Your task to perform on an android device: Add usb-a to the cart on amazon.com Image 0: 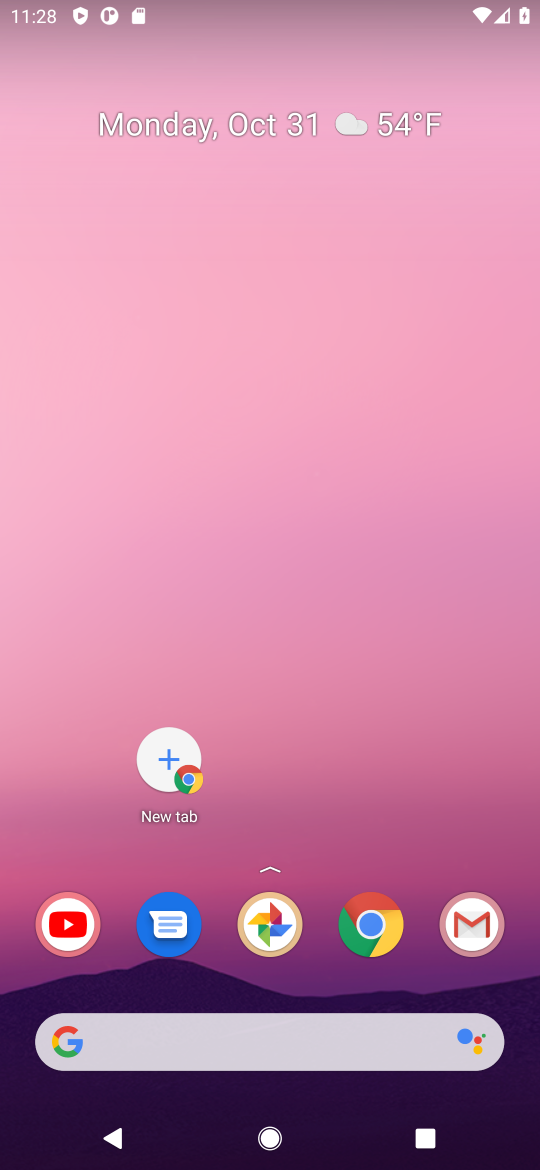
Step 0: press home button
Your task to perform on an android device: Add usb-a to the cart on amazon.com Image 1: 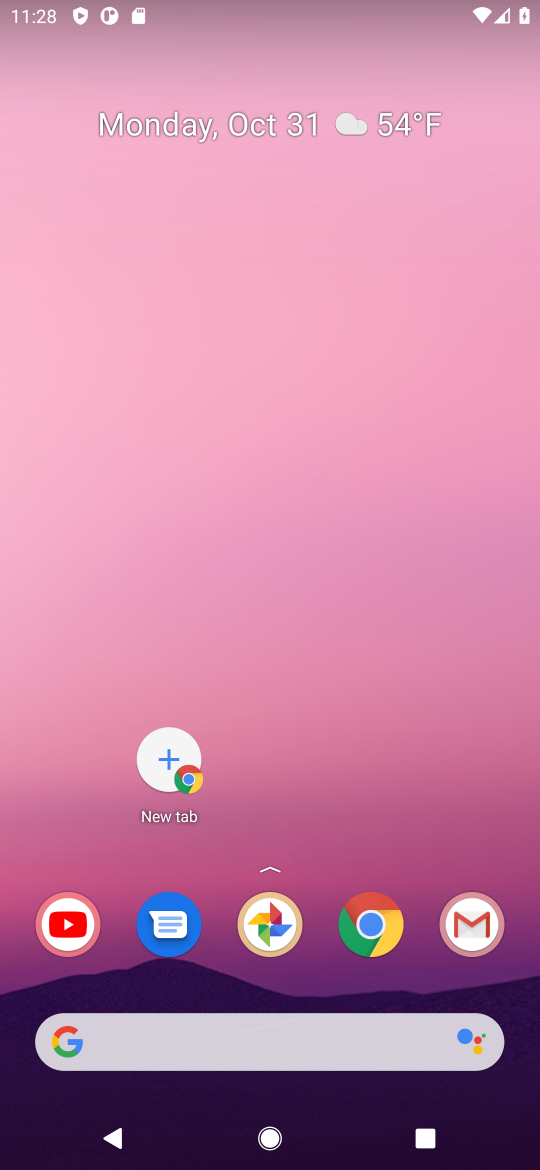
Step 1: click (145, 746)
Your task to perform on an android device: Add usb-a to the cart on amazon.com Image 2: 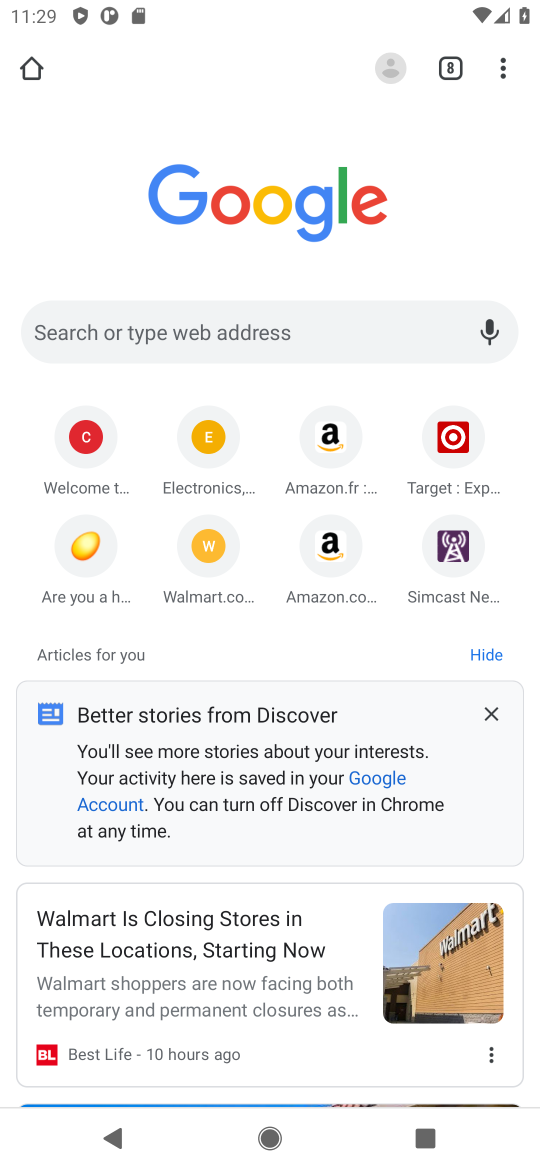
Step 2: click (320, 345)
Your task to perform on an android device: Add usb-a to the cart on amazon.com Image 3: 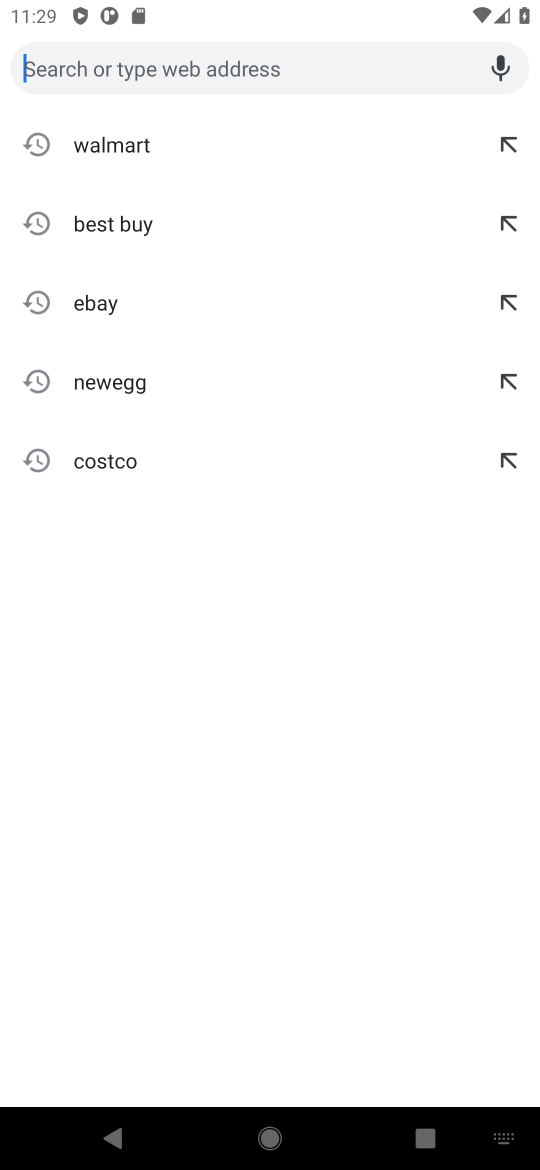
Step 3: type "amazone.com"
Your task to perform on an android device: Add usb-a to the cart on amazon.com Image 4: 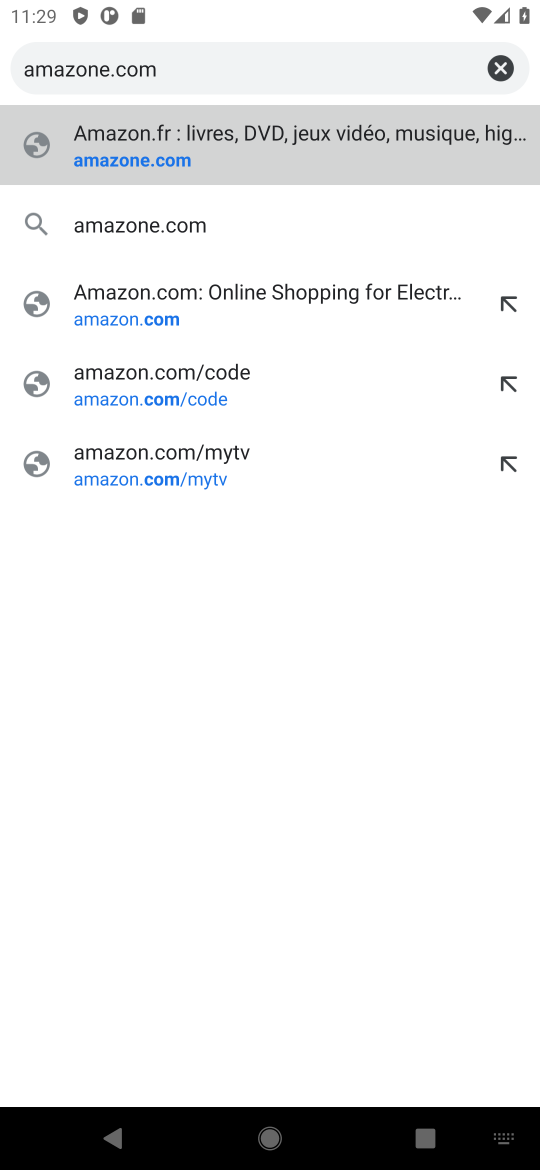
Step 4: type ""
Your task to perform on an android device: Add usb-a to the cart on amazon.com Image 5: 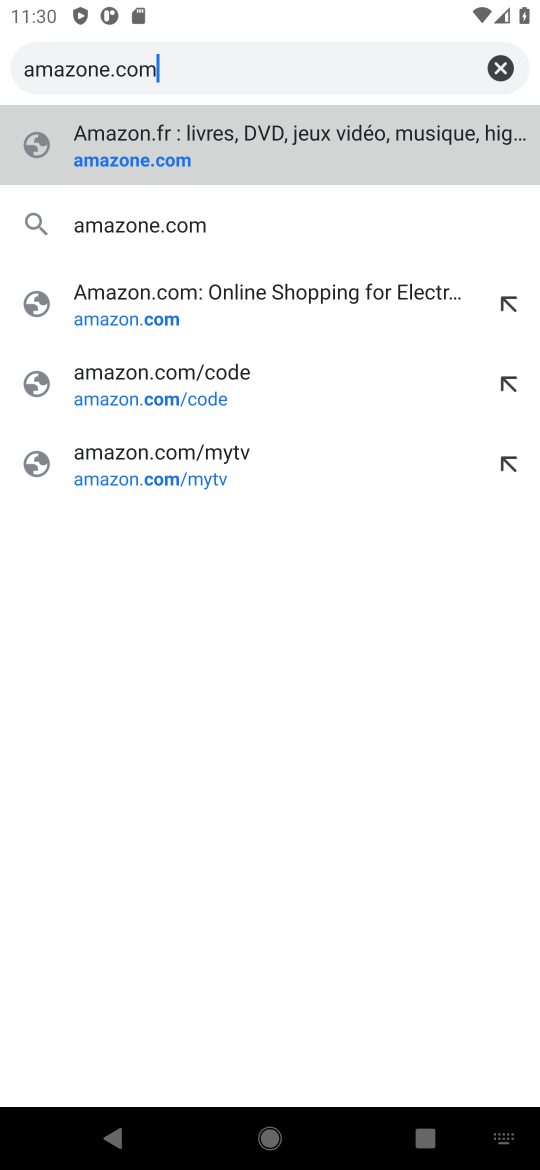
Step 5: click (197, 310)
Your task to perform on an android device: Add usb-a to the cart on amazon.com Image 6: 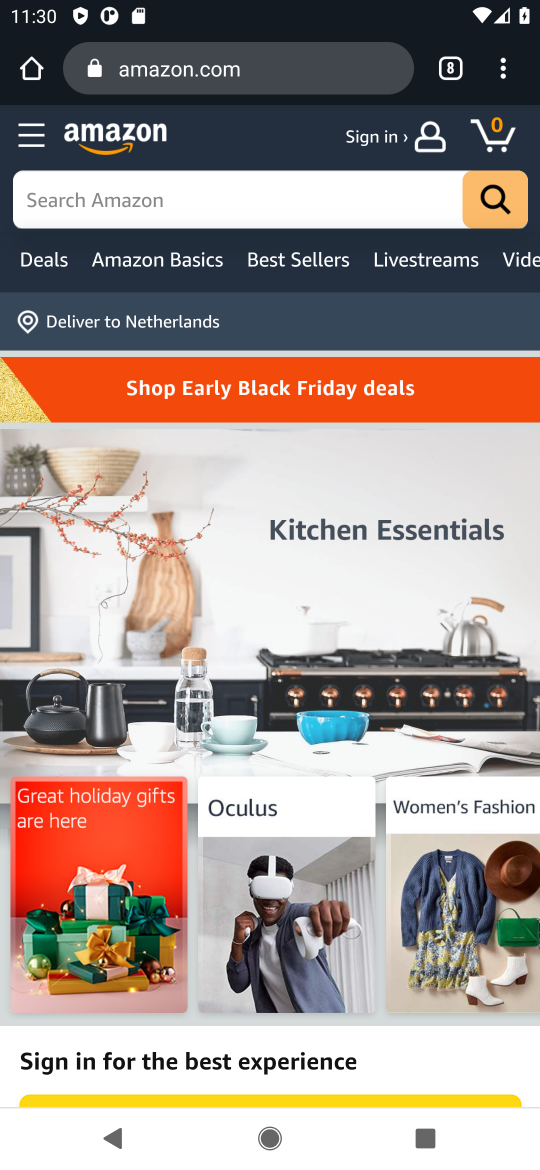
Step 6: click (236, 209)
Your task to perform on an android device: Add usb-a to the cart on amazon.com Image 7: 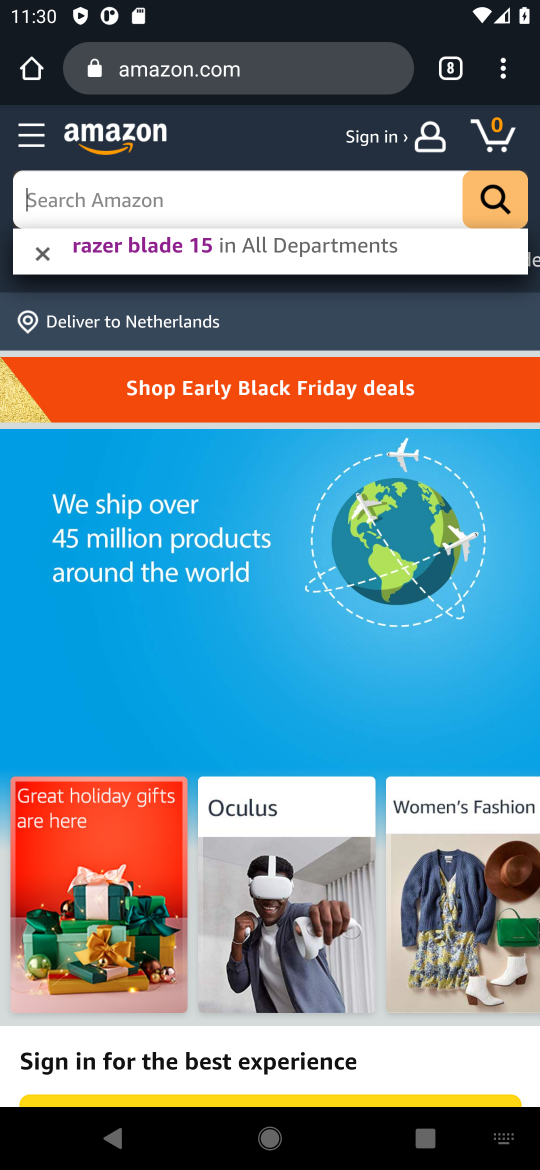
Step 7: type "usb-a"
Your task to perform on an android device: Add usb-a to the cart on amazon.com Image 8: 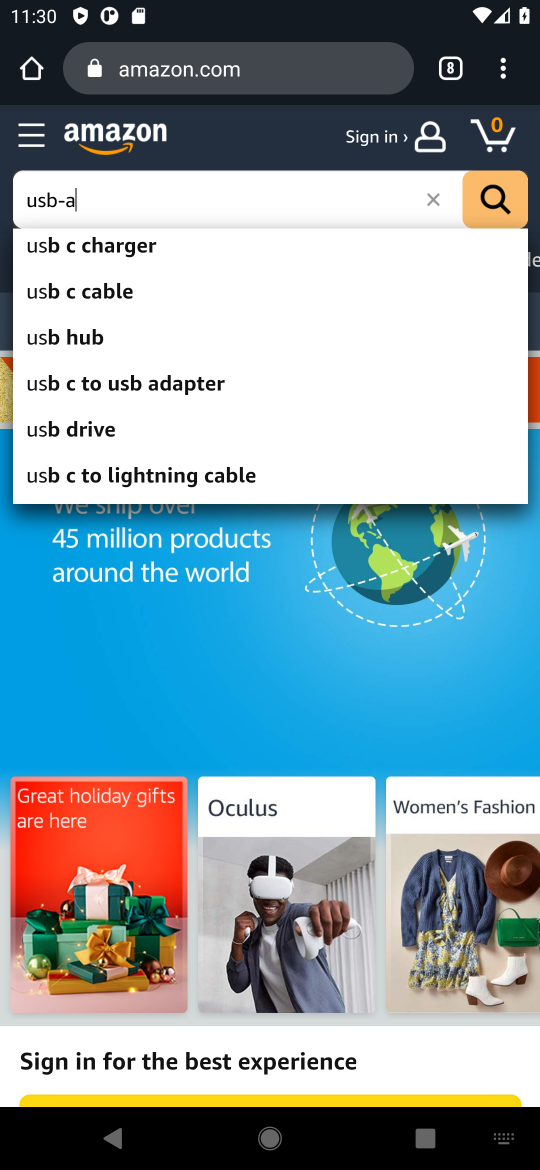
Step 8: type ""
Your task to perform on an android device: Add usb-a to the cart on amazon.com Image 9: 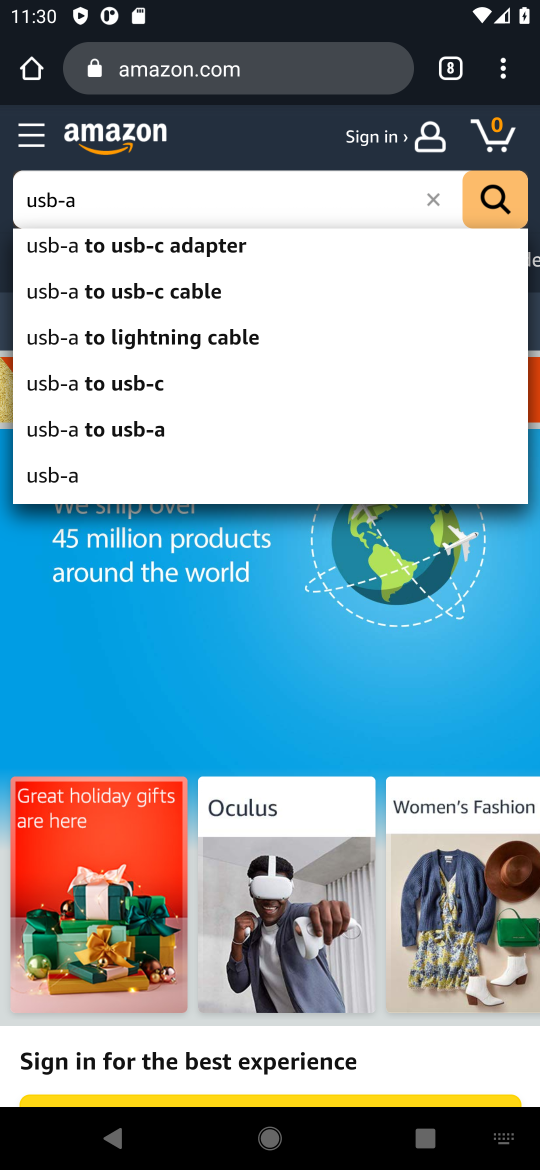
Step 9: click (170, 269)
Your task to perform on an android device: Add usb-a to the cart on amazon.com Image 10: 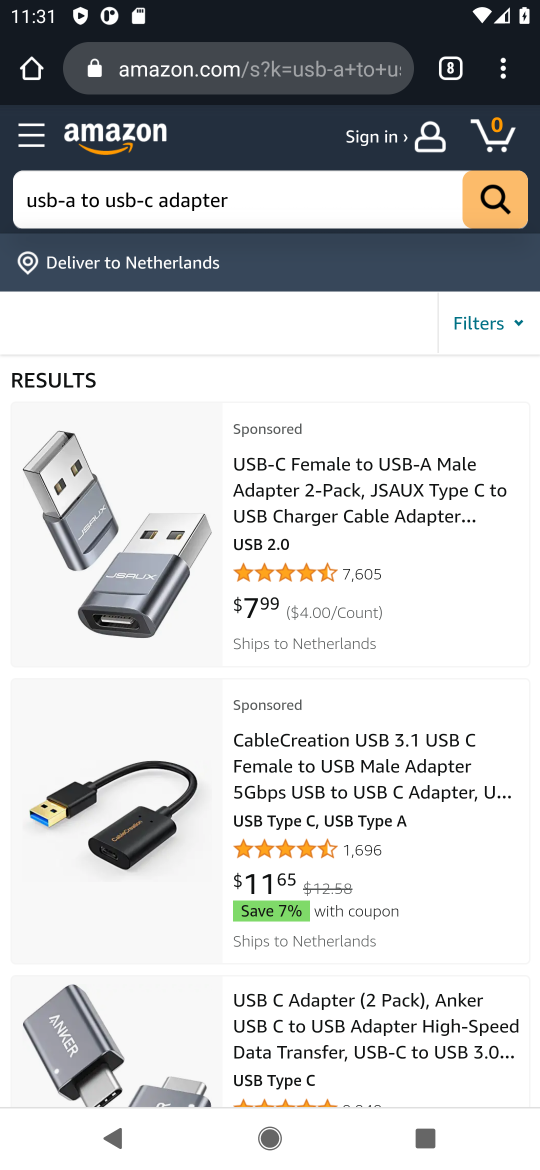
Step 10: drag from (370, 839) to (399, 630)
Your task to perform on an android device: Add usb-a to the cart on amazon.com Image 11: 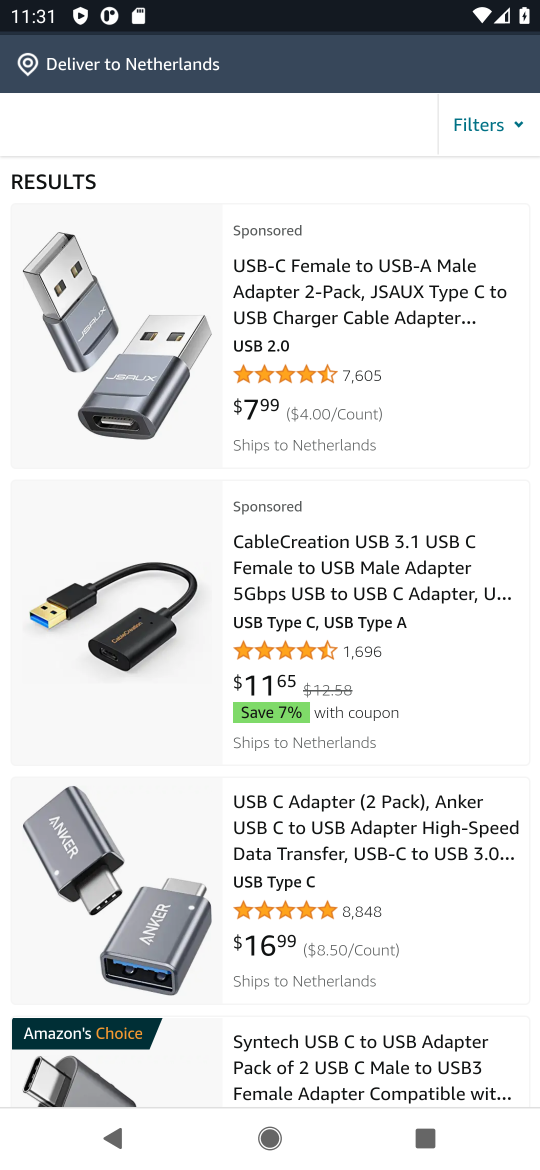
Step 11: click (307, 281)
Your task to perform on an android device: Add usb-a to the cart on amazon.com Image 12: 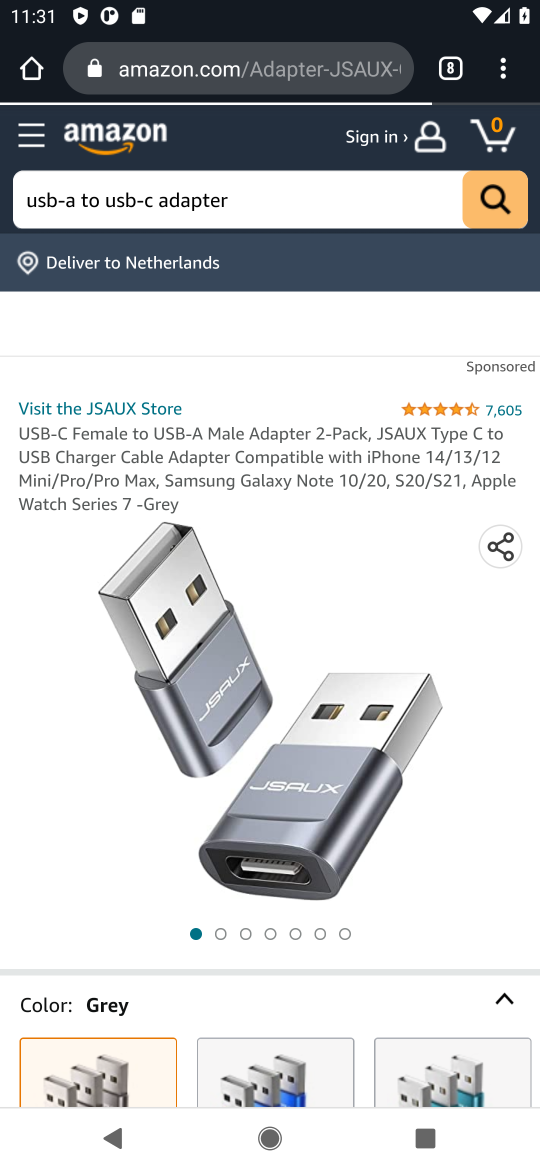
Step 12: drag from (255, 830) to (318, 417)
Your task to perform on an android device: Add usb-a to the cart on amazon.com Image 13: 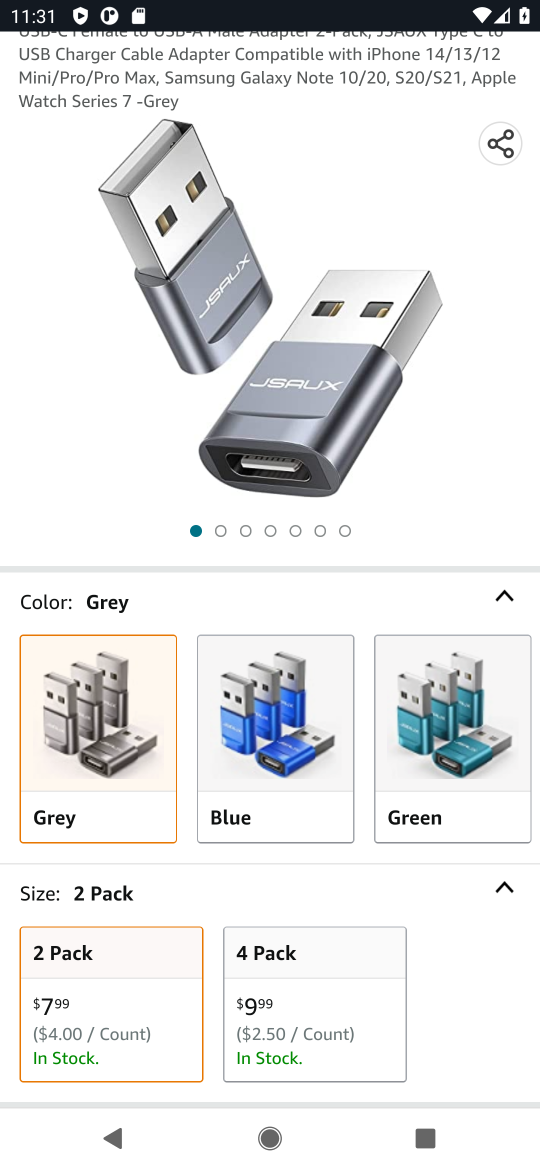
Step 13: drag from (253, 658) to (324, 393)
Your task to perform on an android device: Add usb-a to the cart on amazon.com Image 14: 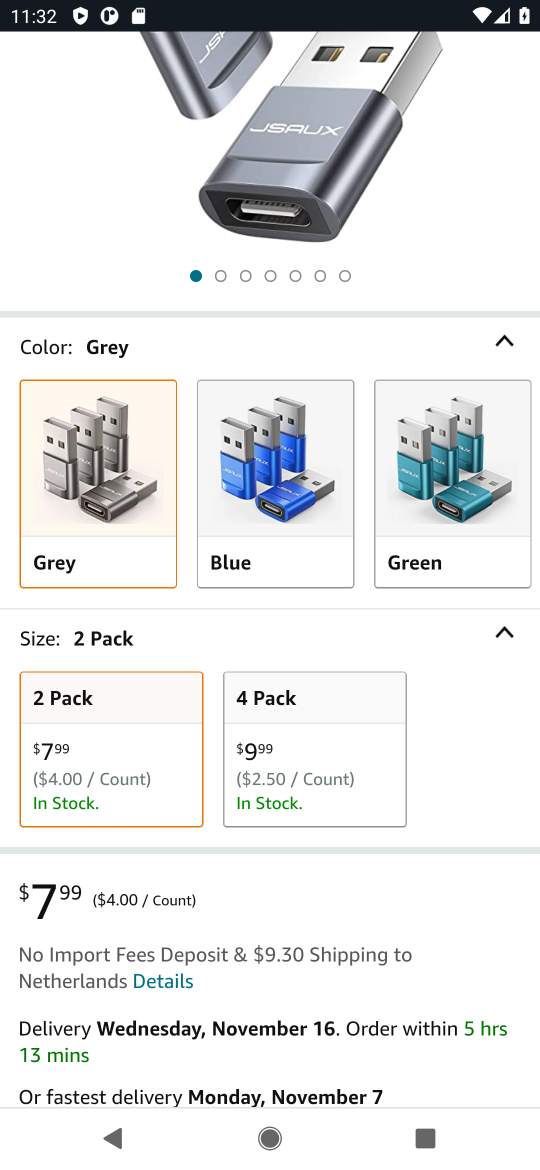
Step 14: drag from (316, 831) to (354, 138)
Your task to perform on an android device: Add usb-a to the cart on amazon.com Image 15: 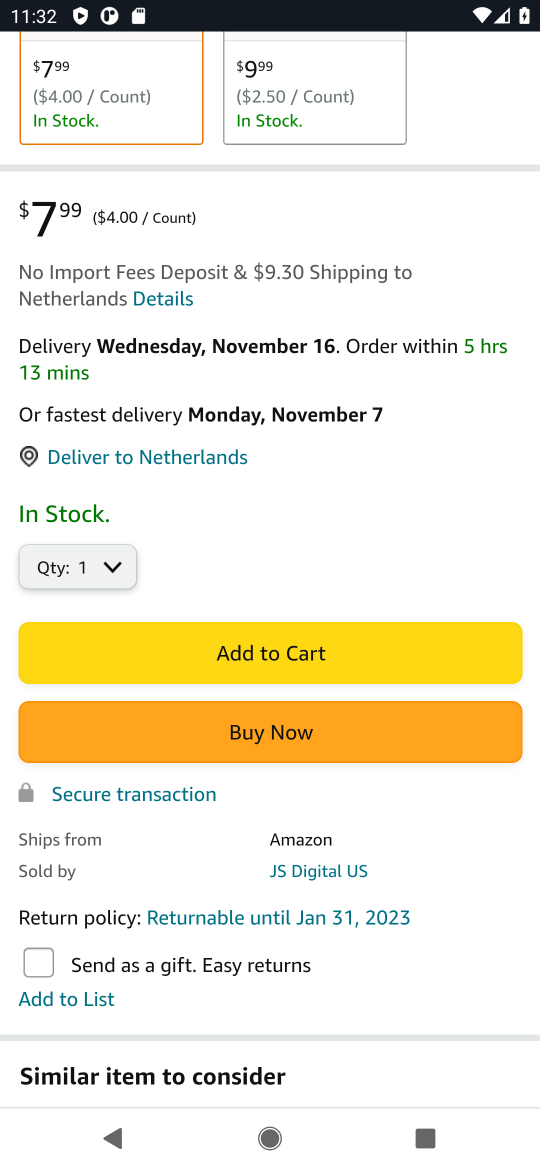
Step 15: click (268, 658)
Your task to perform on an android device: Add usb-a to the cart on amazon.com Image 16: 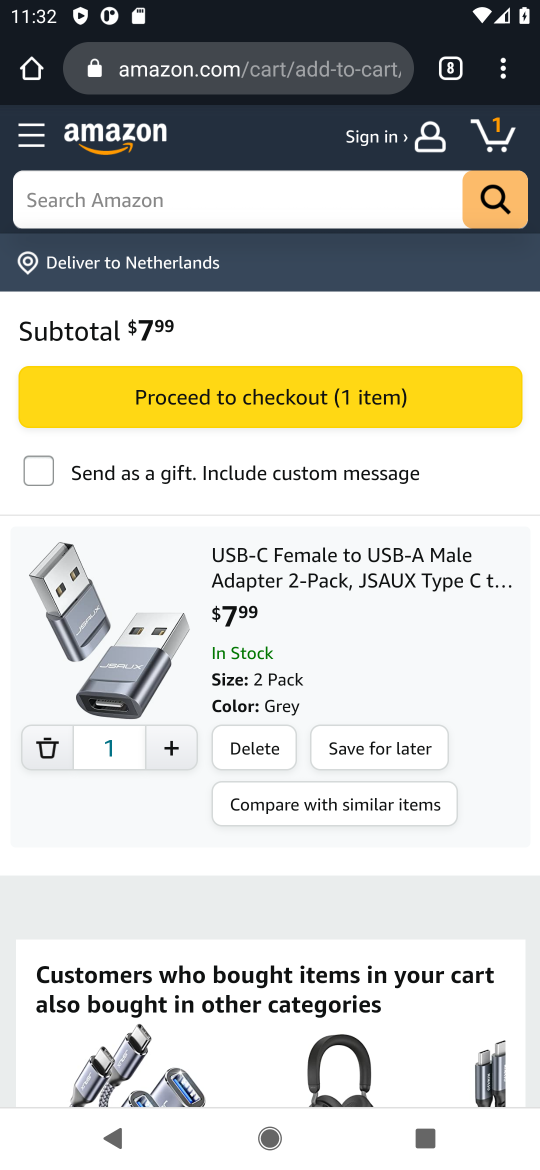
Step 16: drag from (446, 766) to (485, 576)
Your task to perform on an android device: Add usb-a to the cart on amazon.com Image 17: 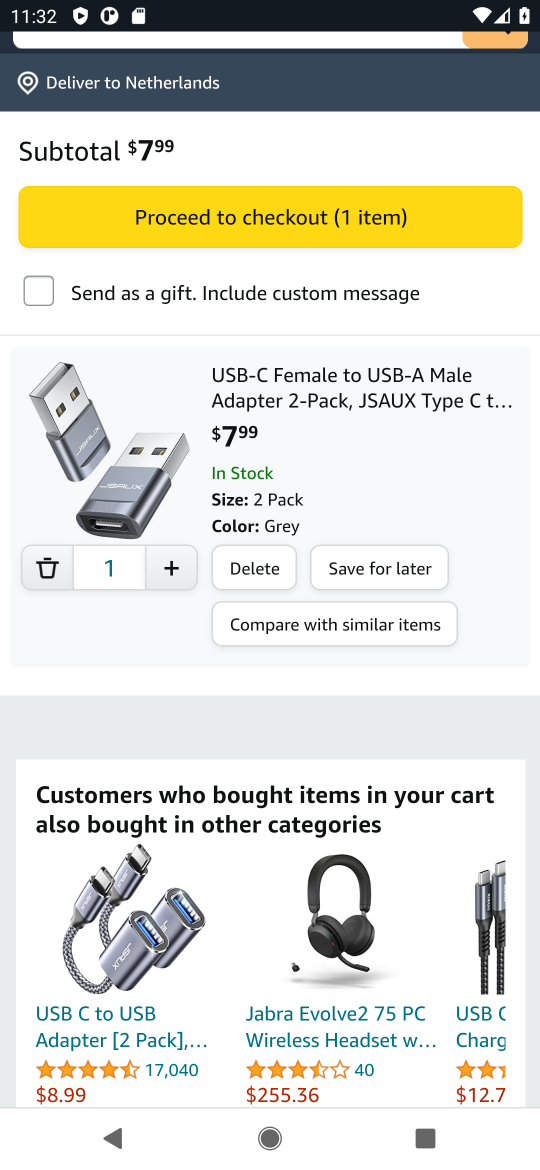
Step 17: drag from (228, 322) to (353, 972)
Your task to perform on an android device: Add usb-a to the cart on amazon.com Image 18: 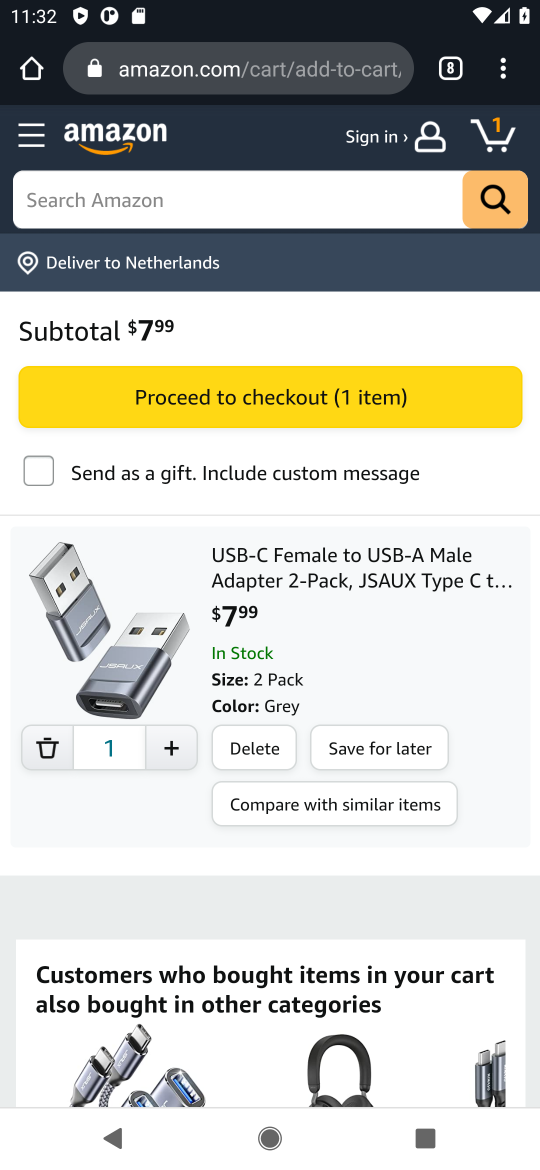
Step 18: click (486, 141)
Your task to perform on an android device: Add usb-a to the cart on amazon.com Image 19: 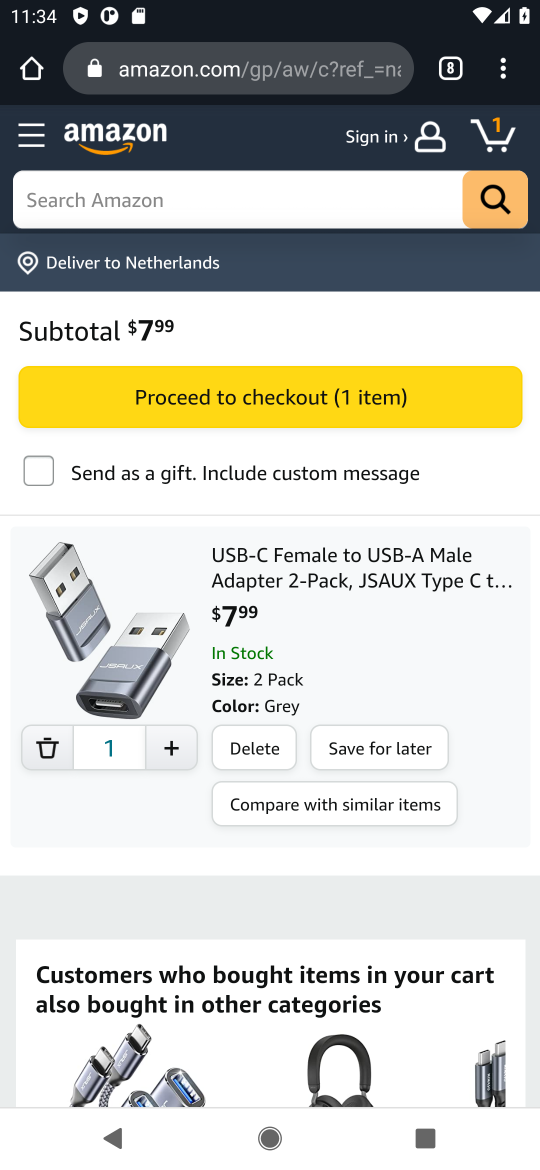
Step 19: task complete